Your task to perform on an android device: Set the phone to "Do not disturb". Image 0: 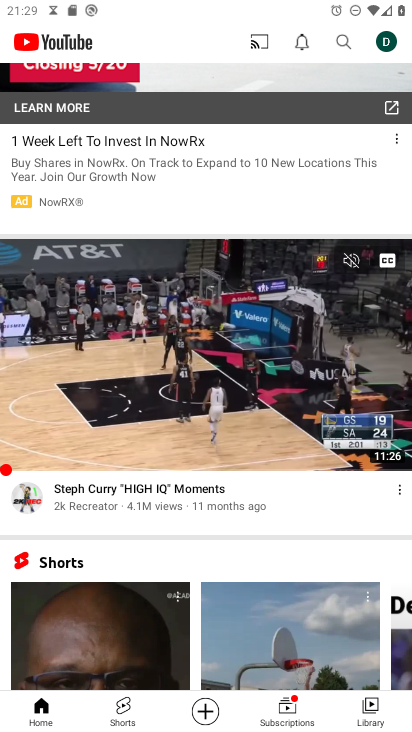
Step 0: press home button
Your task to perform on an android device: Set the phone to "Do not disturb". Image 1: 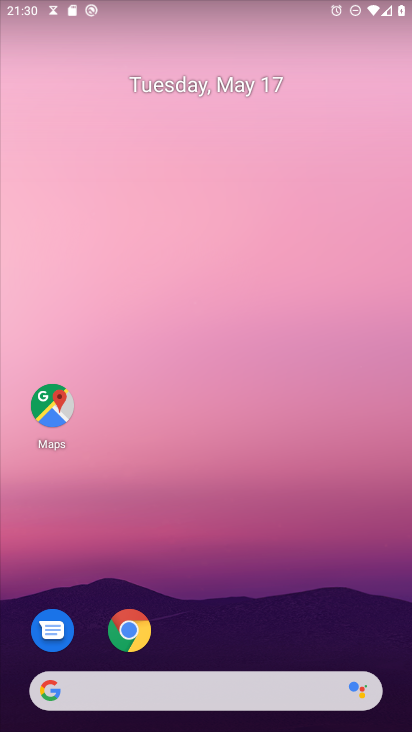
Step 1: drag from (214, 618) to (291, 78)
Your task to perform on an android device: Set the phone to "Do not disturb". Image 2: 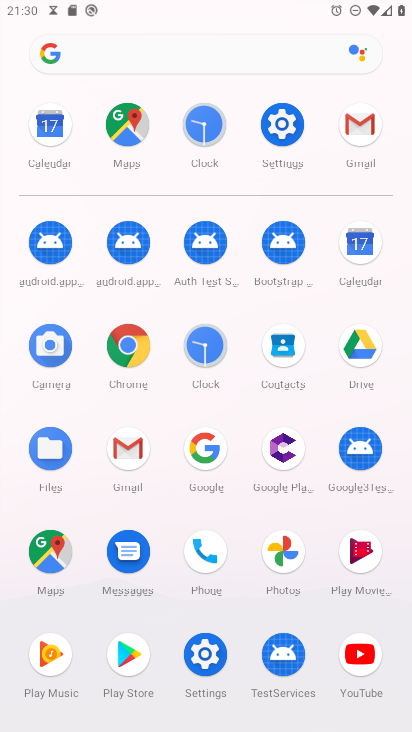
Step 2: click (294, 133)
Your task to perform on an android device: Set the phone to "Do not disturb". Image 3: 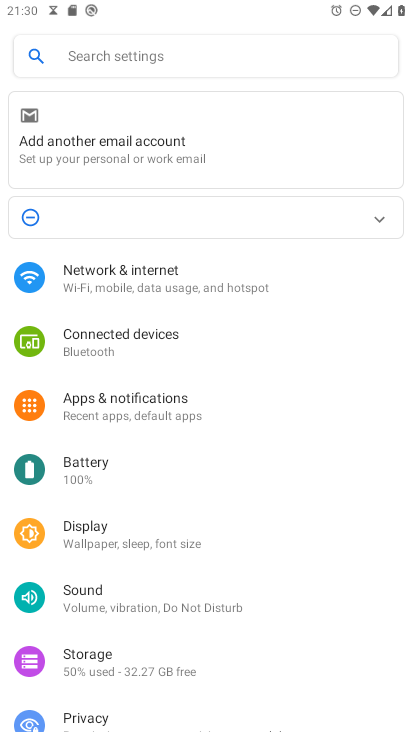
Step 3: click (371, 219)
Your task to perform on an android device: Set the phone to "Do not disturb". Image 4: 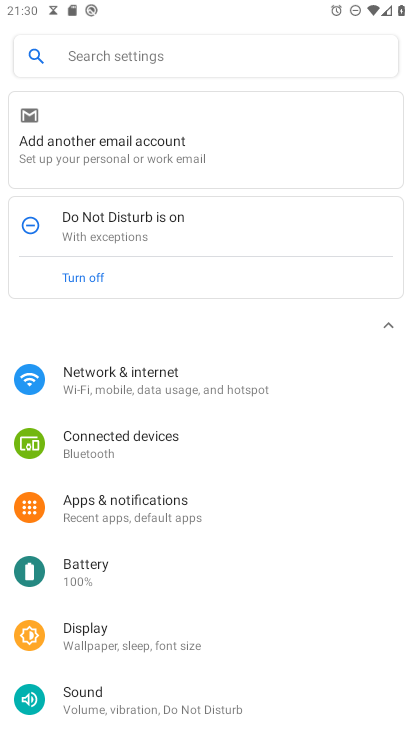
Step 4: task complete